Your task to perform on an android device: Open Google Chrome and click the shortcut for Amazon.com Image 0: 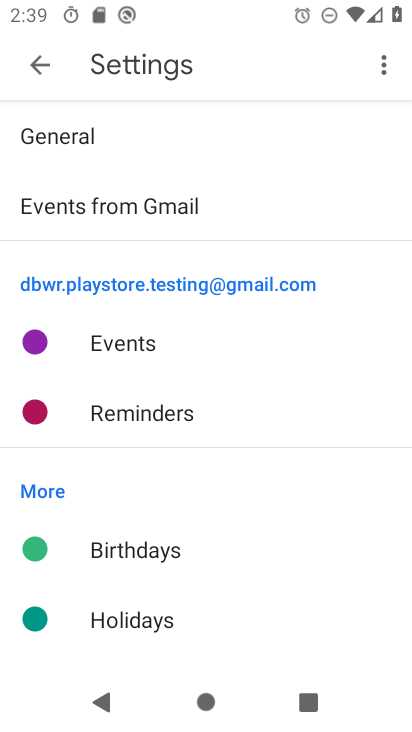
Step 0: drag from (201, 507) to (253, 269)
Your task to perform on an android device: Open Google Chrome and click the shortcut for Amazon.com Image 1: 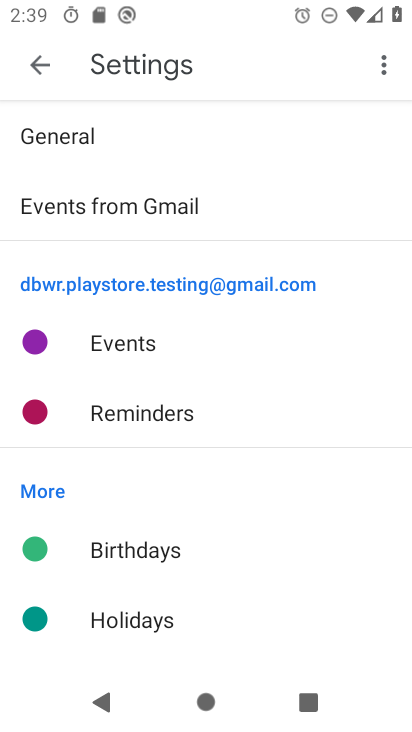
Step 1: press home button
Your task to perform on an android device: Open Google Chrome and click the shortcut for Amazon.com Image 2: 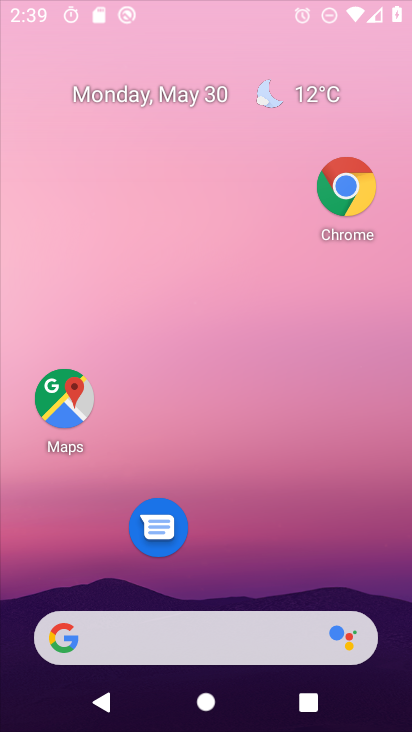
Step 2: drag from (179, 526) to (254, 199)
Your task to perform on an android device: Open Google Chrome and click the shortcut for Amazon.com Image 3: 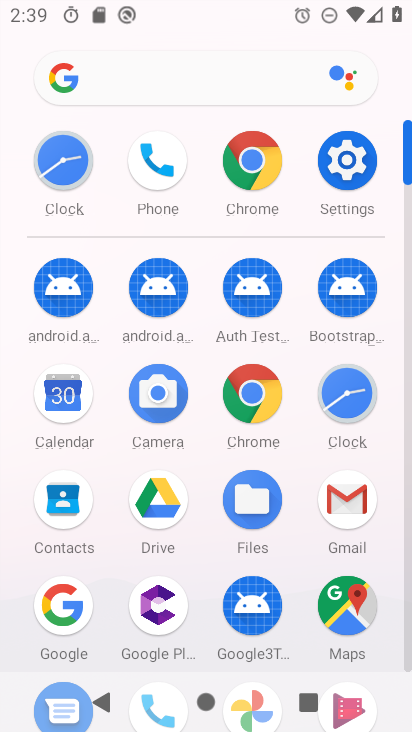
Step 3: click (247, 405)
Your task to perform on an android device: Open Google Chrome and click the shortcut for Amazon.com Image 4: 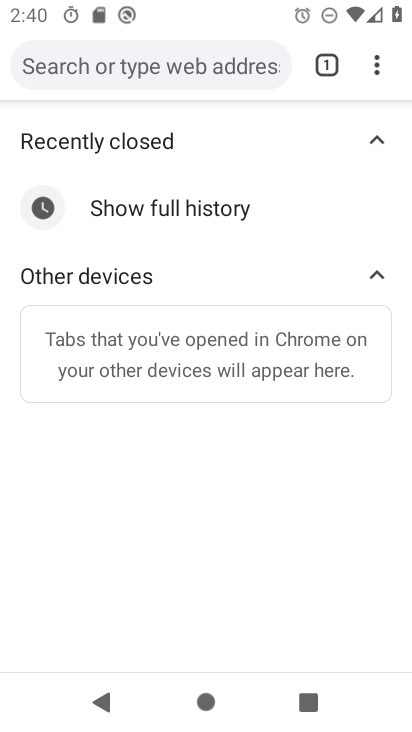
Step 4: drag from (379, 59) to (210, 552)
Your task to perform on an android device: Open Google Chrome and click the shortcut for Amazon.com Image 5: 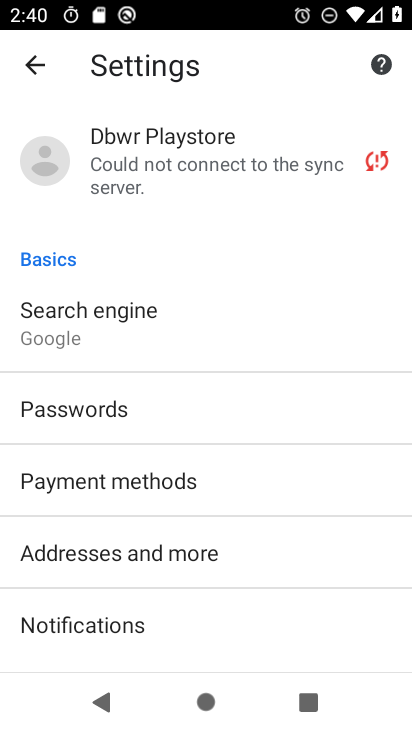
Step 5: click (58, 65)
Your task to perform on an android device: Open Google Chrome and click the shortcut for Amazon.com Image 6: 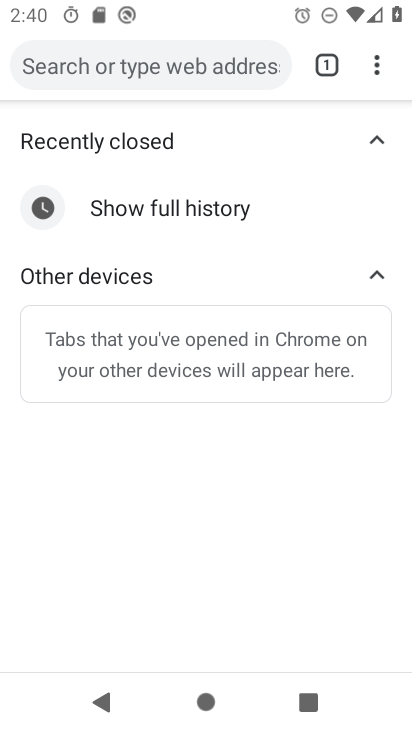
Step 6: click (340, 67)
Your task to perform on an android device: Open Google Chrome and click the shortcut for Amazon.com Image 7: 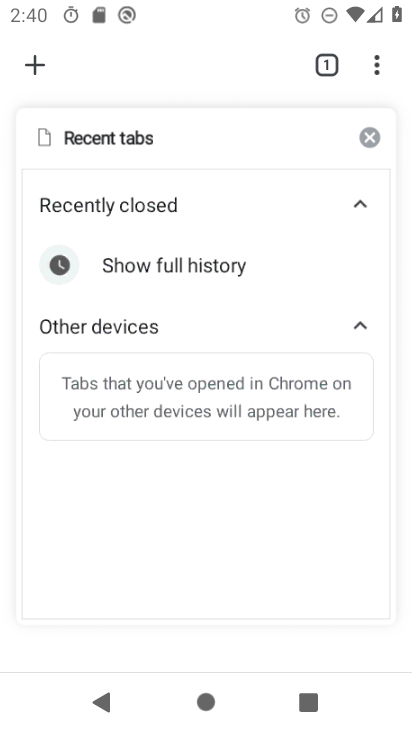
Step 7: click (32, 58)
Your task to perform on an android device: Open Google Chrome and click the shortcut for Amazon.com Image 8: 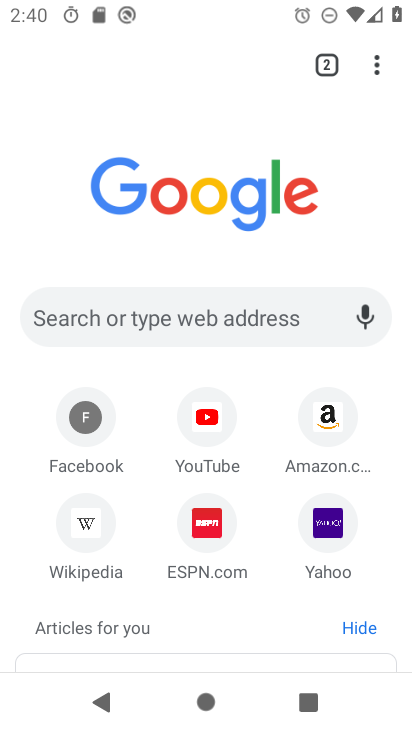
Step 8: click (325, 418)
Your task to perform on an android device: Open Google Chrome and click the shortcut for Amazon.com Image 9: 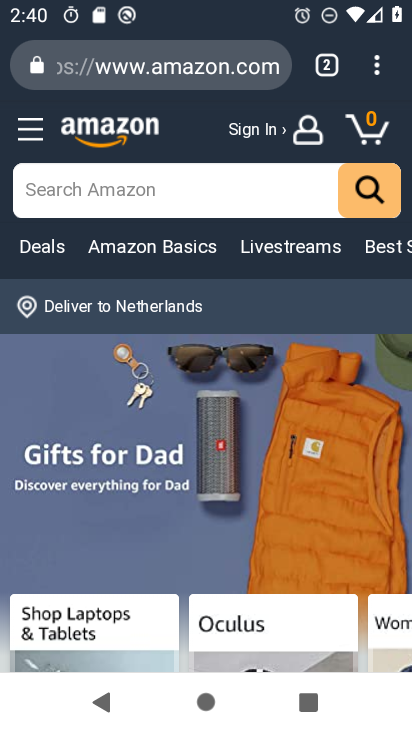
Step 9: task complete